Your task to perform on an android device: allow cookies in the chrome app Image 0: 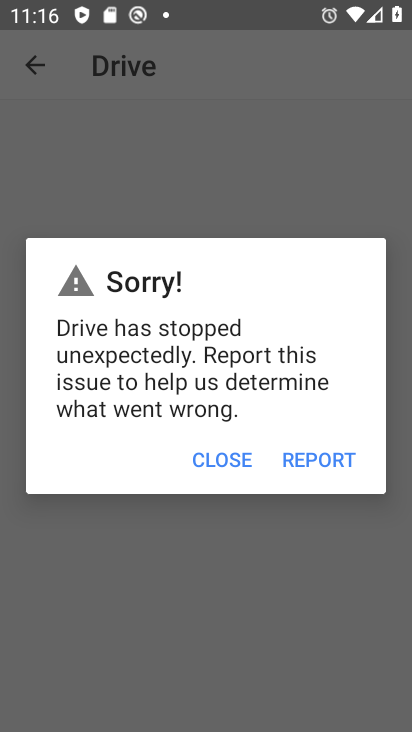
Step 0: press home button
Your task to perform on an android device: allow cookies in the chrome app Image 1: 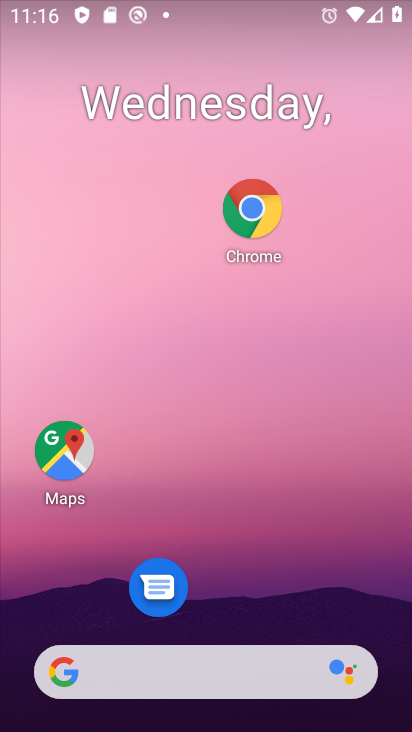
Step 1: click (262, 253)
Your task to perform on an android device: allow cookies in the chrome app Image 2: 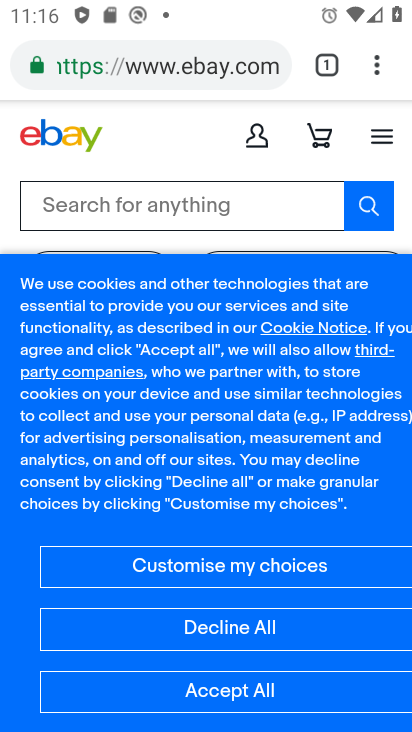
Step 2: click (373, 68)
Your task to perform on an android device: allow cookies in the chrome app Image 3: 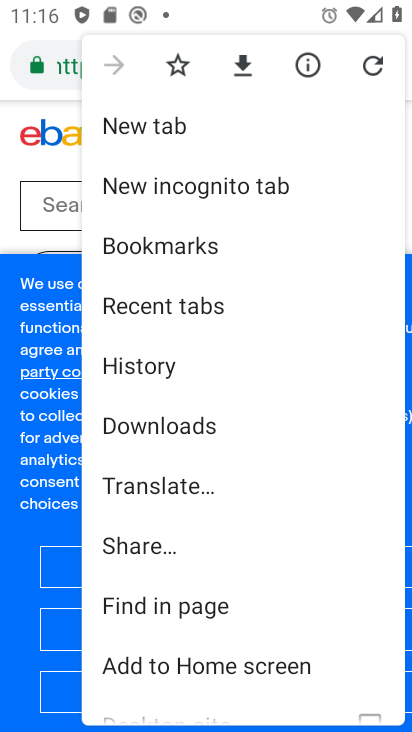
Step 3: drag from (156, 632) to (153, 169)
Your task to perform on an android device: allow cookies in the chrome app Image 4: 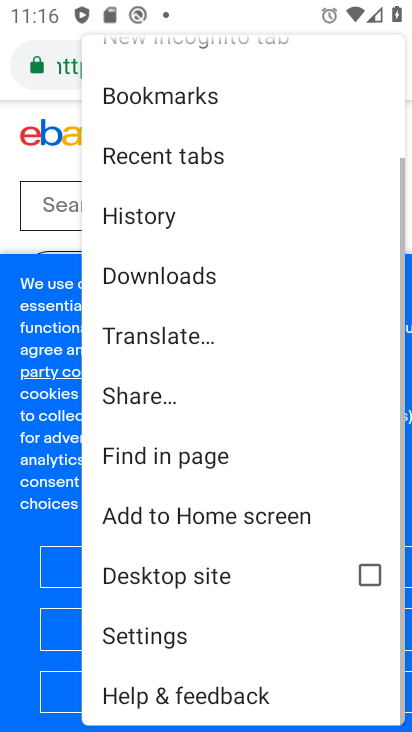
Step 4: click (213, 656)
Your task to perform on an android device: allow cookies in the chrome app Image 5: 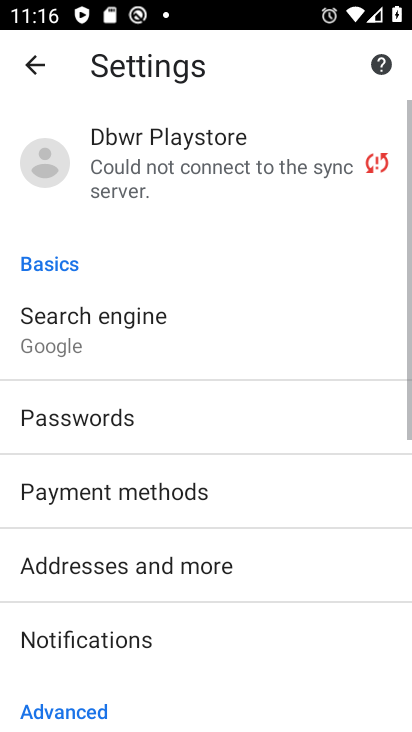
Step 5: drag from (138, 621) to (146, 64)
Your task to perform on an android device: allow cookies in the chrome app Image 6: 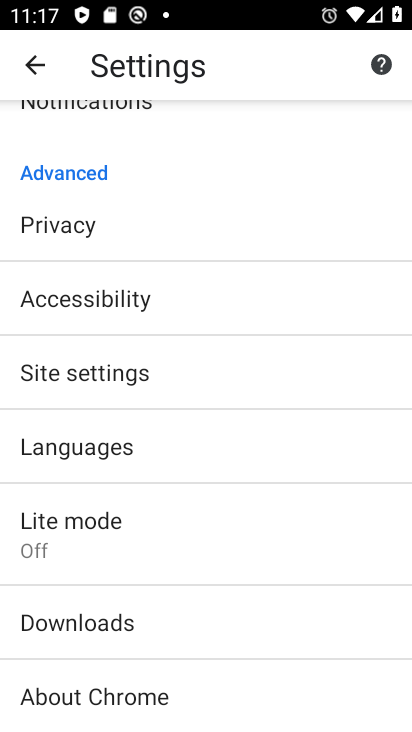
Step 6: drag from (197, 542) to (228, 205)
Your task to perform on an android device: allow cookies in the chrome app Image 7: 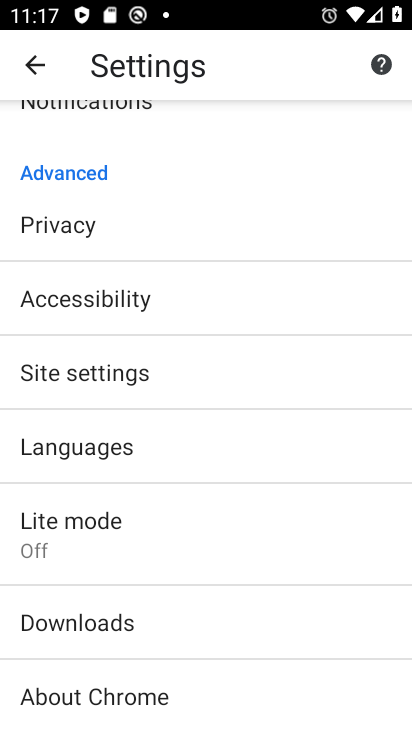
Step 7: click (85, 374)
Your task to perform on an android device: allow cookies in the chrome app Image 8: 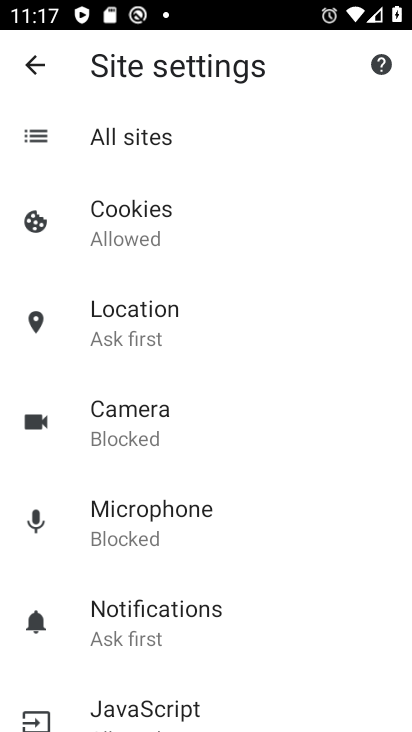
Step 8: click (164, 235)
Your task to perform on an android device: allow cookies in the chrome app Image 9: 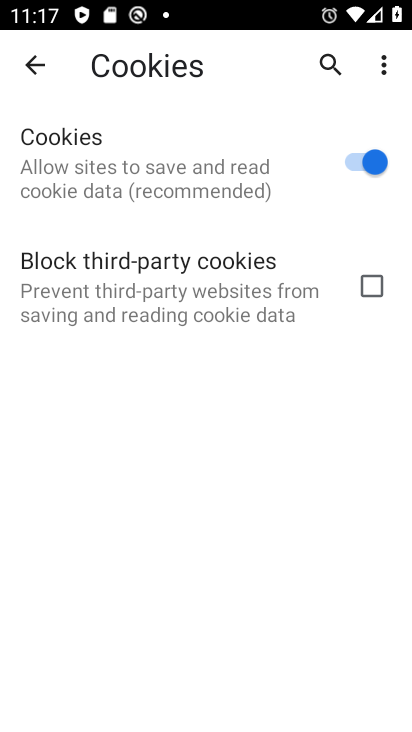
Step 9: task complete